Your task to perform on an android device: Go to calendar. Show me events next week Image 0: 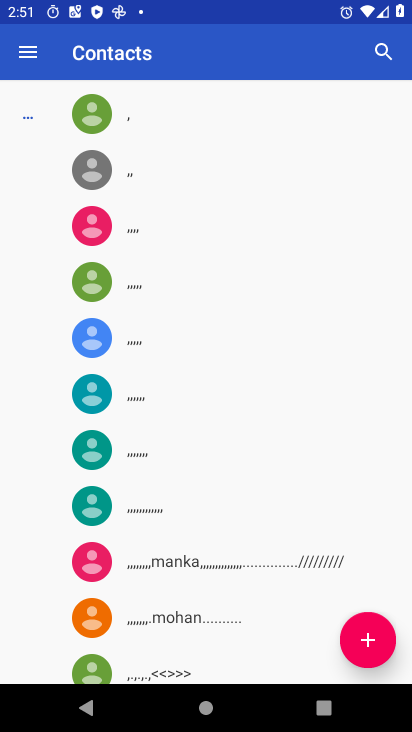
Step 0: press home button
Your task to perform on an android device: Go to calendar. Show me events next week Image 1: 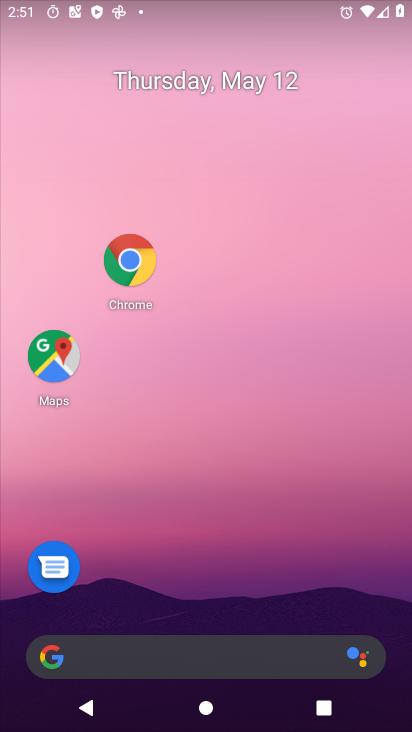
Step 1: drag from (238, 635) to (221, 210)
Your task to perform on an android device: Go to calendar. Show me events next week Image 2: 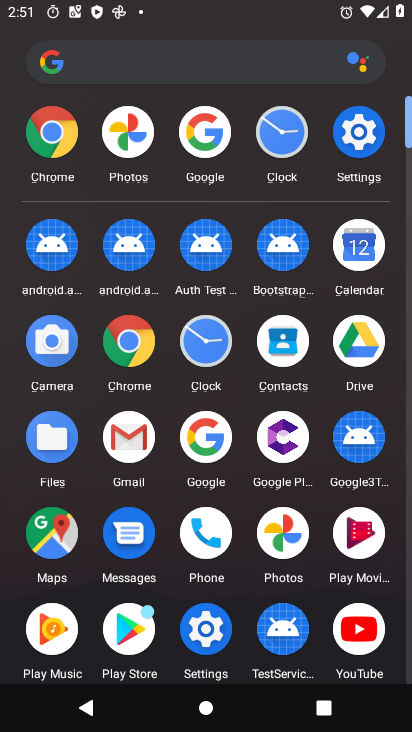
Step 2: click (371, 263)
Your task to perform on an android device: Go to calendar. Show me events next week Image 3: 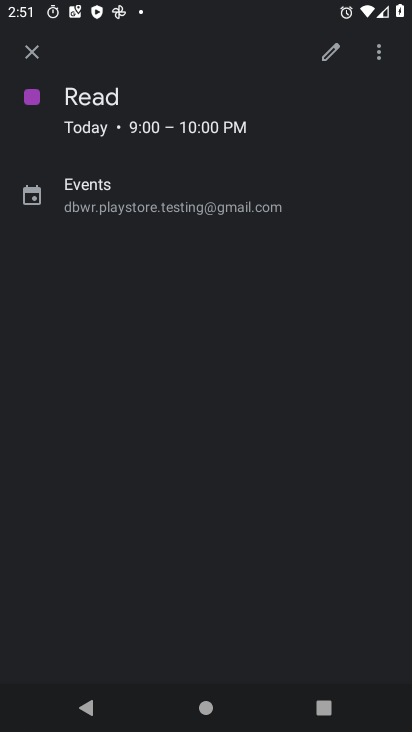
Step 3: click (37, 54)
Your task to perform on an android device: Go to calendar. Show me events next week Image 4: 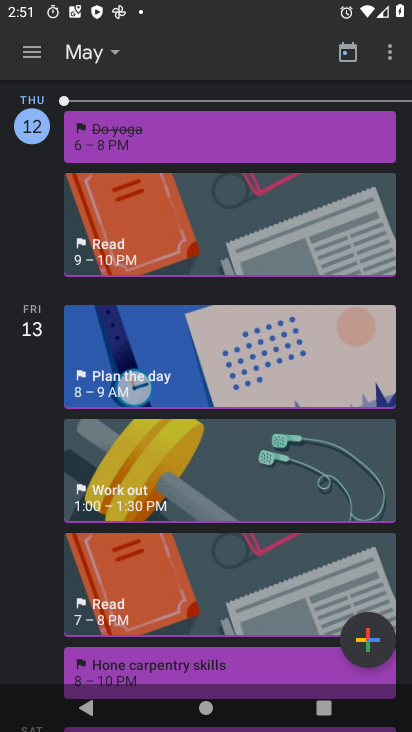
Step 4: drag from (165, 117) to (184, 452)
Your task to perform on an android device: Go to calendar. Show me events next week Image 5: 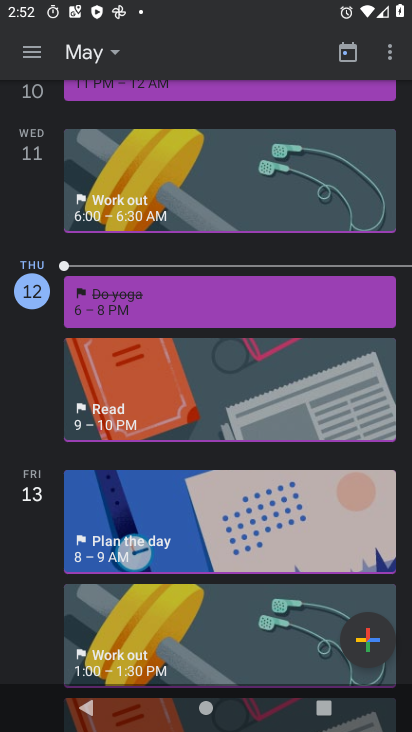
Step 5: drag from (225, 83) to (232, 480)
Your task to perform on an android device: Go to calendar. Show me events next week Image 6: 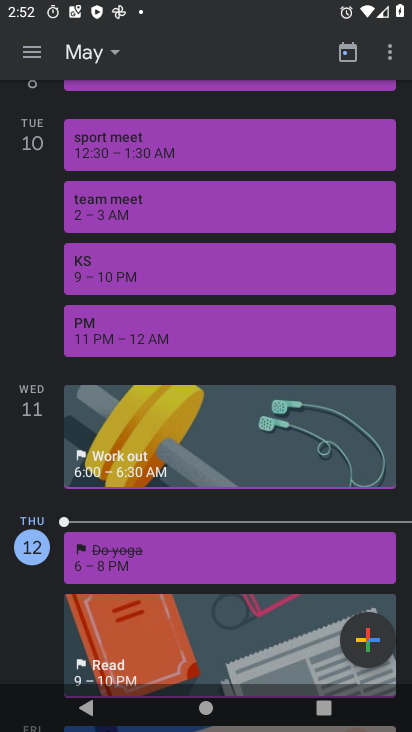
Step 6: click (98, 58)
Your task to perform on an android device: Go to calendar. Show me events next week Image 7: 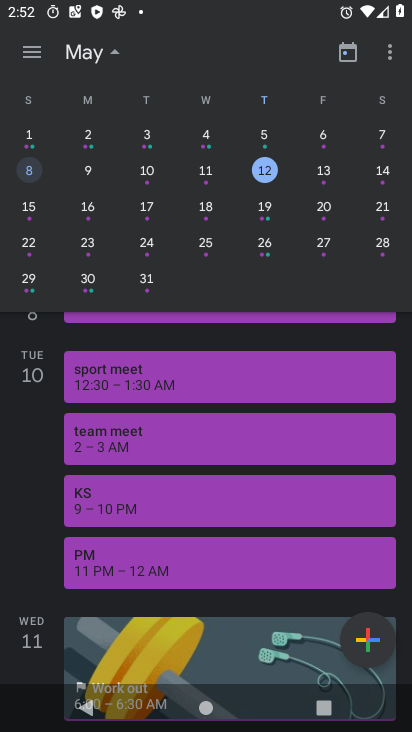
Step 7: click (264, 203)
Your task to perform on an android device: Go to calendar. Show me events next week Image 8: 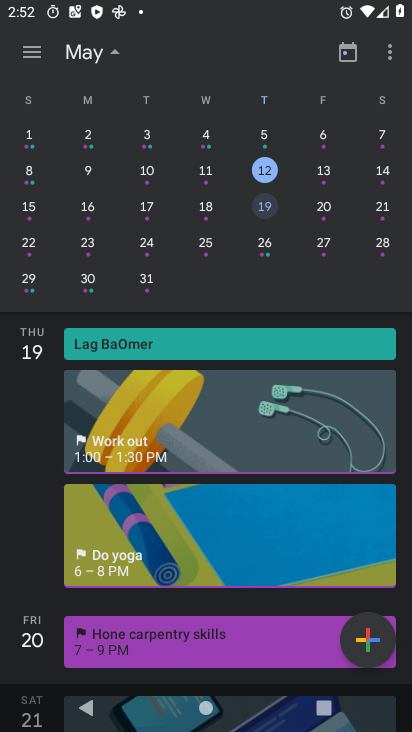
Step 8: click (148, 422)
Your task to perform on an android device: Go to calendar. Show me events next week Image 9: 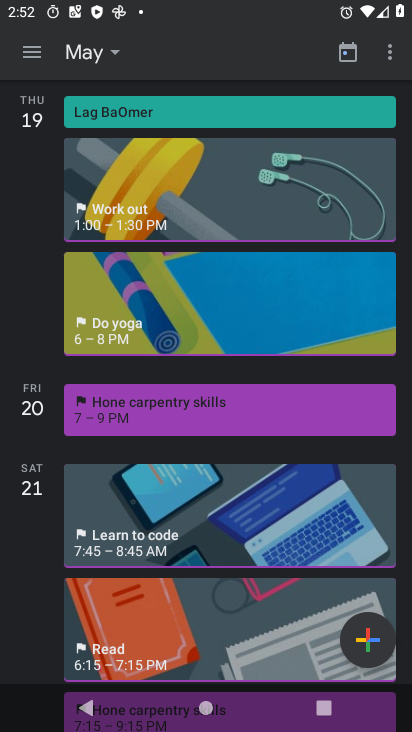
Step 9: click (155, 540)
Your task to perform on an android device: Go to calendar. Show me events next week Image 10: 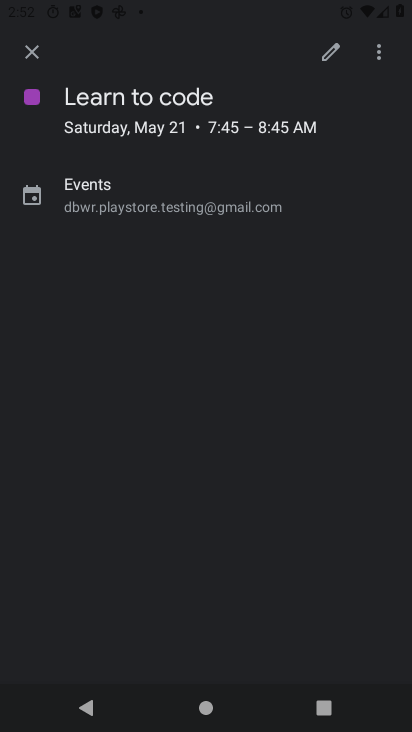
Step 10: task complete